Your task to perform on an android device: Go to calendar. Show me events next week Image 0: 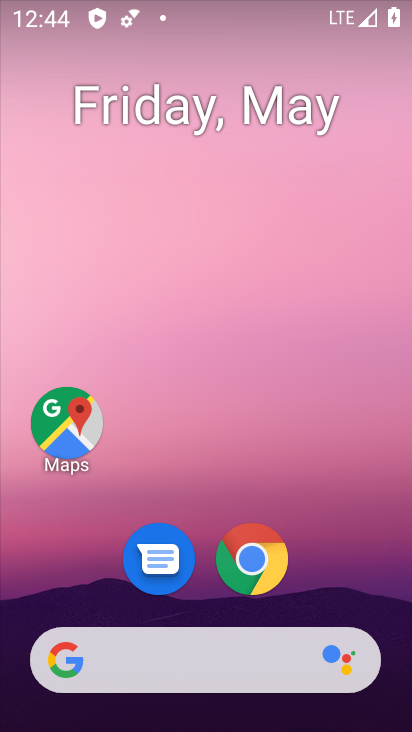
Step 0: press home button
Your task to perform on an android device: Go to calendar. Show me events next week Image 1: 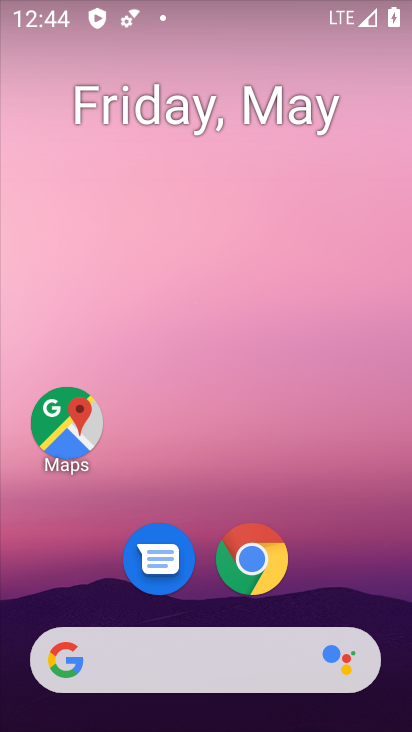
Step 1: drag from (329, 532) to (373, 137)
Your task to perform on an android device: Go to calendar. Show me events next week Image 2: 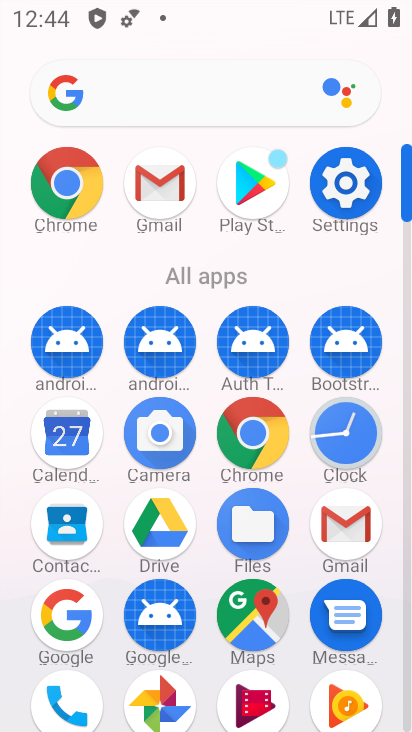
Step 2: click (41, 412)
Your task to perform on an android device: Go to calendar. Show me events next week Image 3: 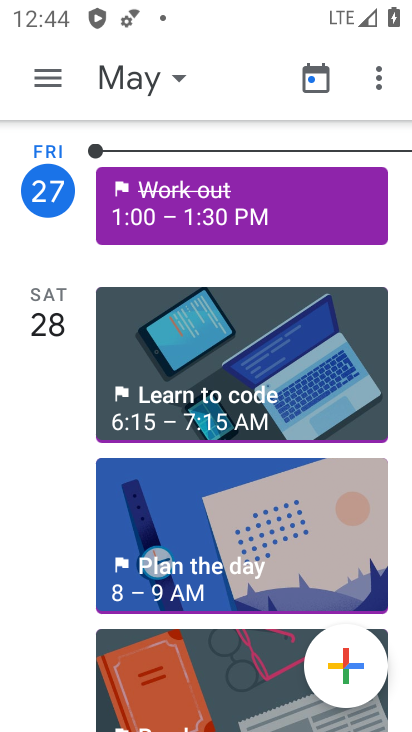
Step 3: click (137, 92)
Your task to perform on an android device: Go to calendar. Show me events next week Image 4: 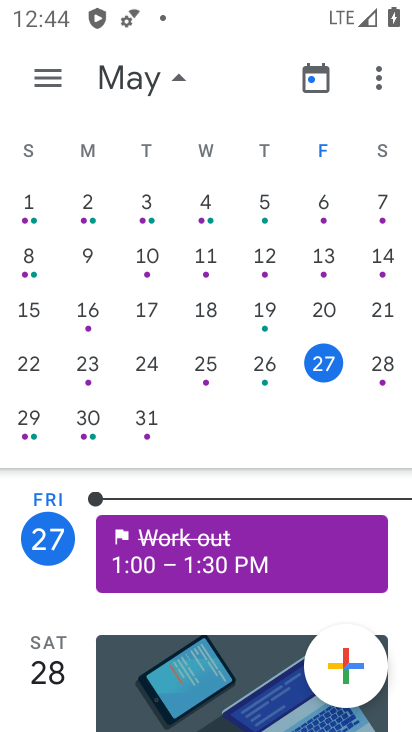
Step 4: drag from (383, 327) to (23, 326)
Your task to perform on an android device: Go to calendar. Show me events next week Image 5: 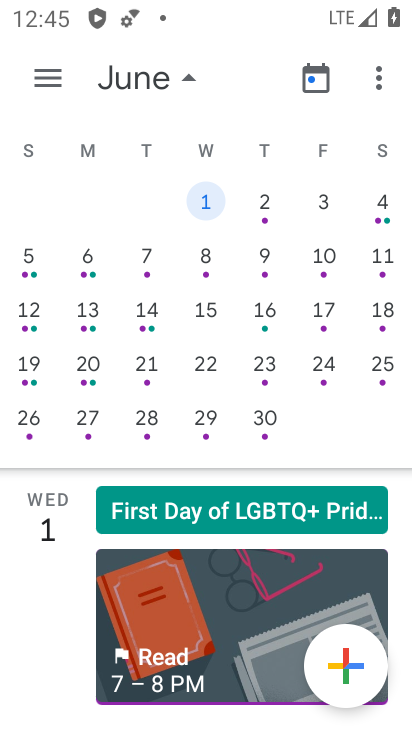
Step 5: click (263, 201)
Your task to perform on an android device: Go to calendar. Show me events next week Image 6: 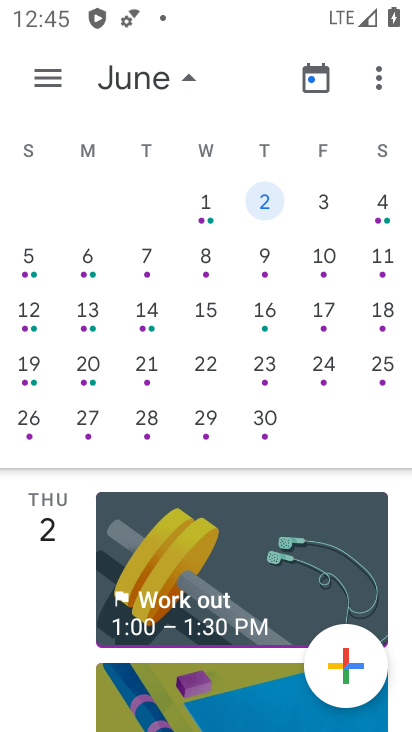
Step 6: click (43, 75)
Your task to perform on an android device: Go to calendar. Show me events next week Image 7: 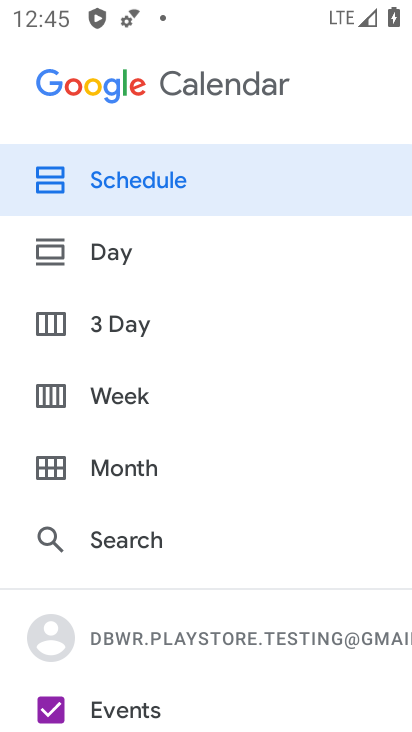
Step 7: click (105, 385)
Your task to perform on an android device: Go to calendar. Show me events next week Image 8: 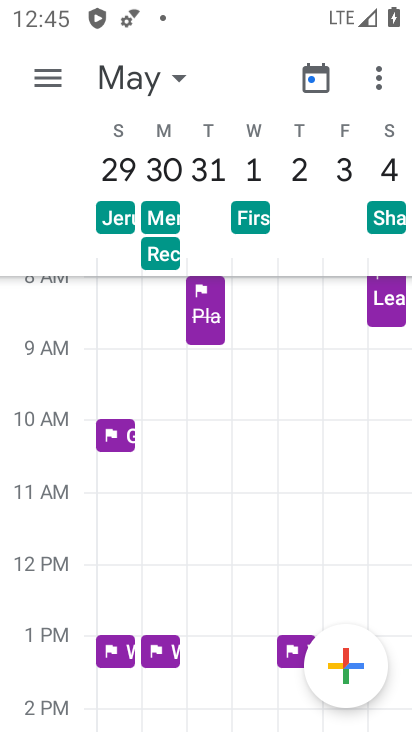
Step 8: task complete